Your task to perform on an android device: turn on improve location accuracy Image 0: 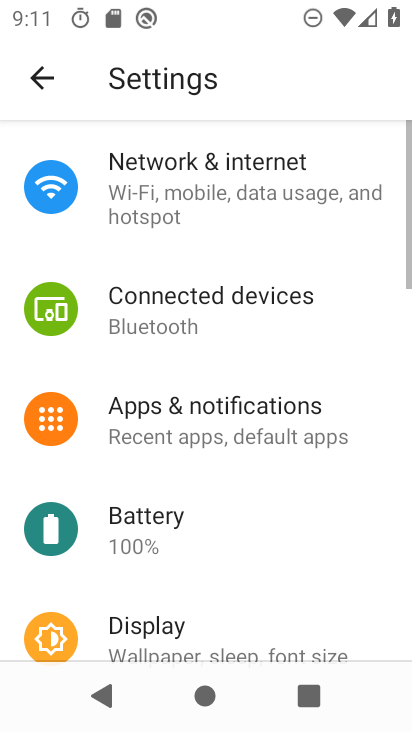
Step 0: press home button
Your task to perform on an android device: turn on improve location accuracy Image 1: 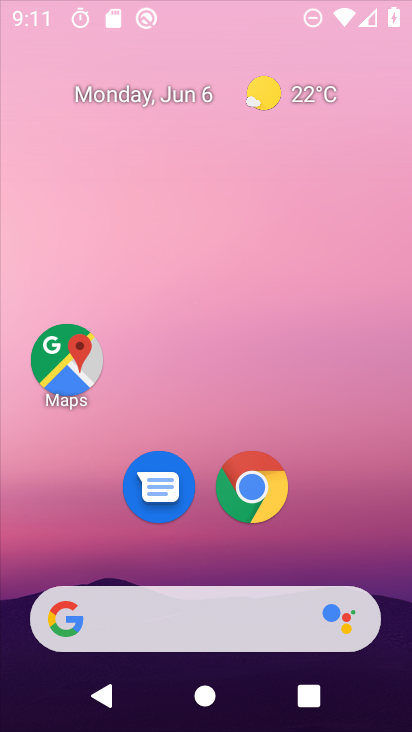
Step 1: drag from (400, 679) to (327, 76)
Your task to perform on an android device: turn on improve location accuracy Image 2: 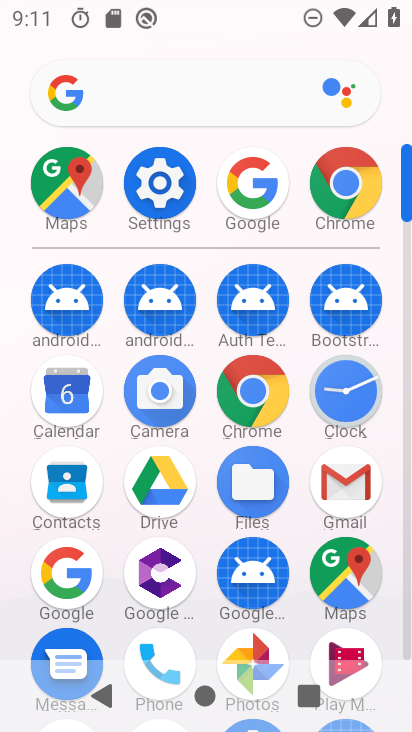
Step 2: click (141, 198)
Your task to perform on an android device: turn on improve location accuracy Image 3: 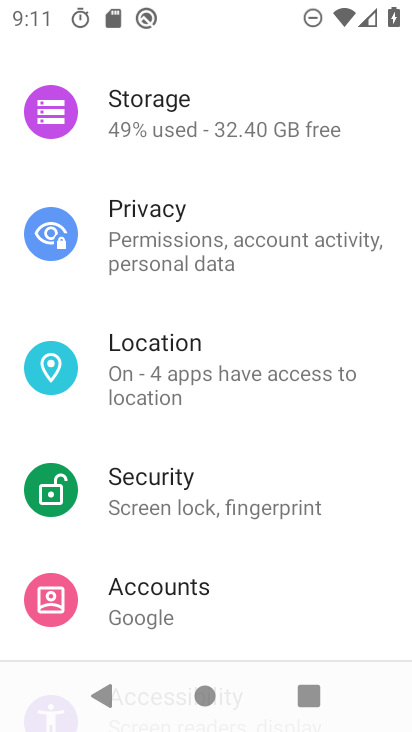
Step 3: click (157, 368)
Your task to perform on an android device: turn on improve location accuracy Image 4: 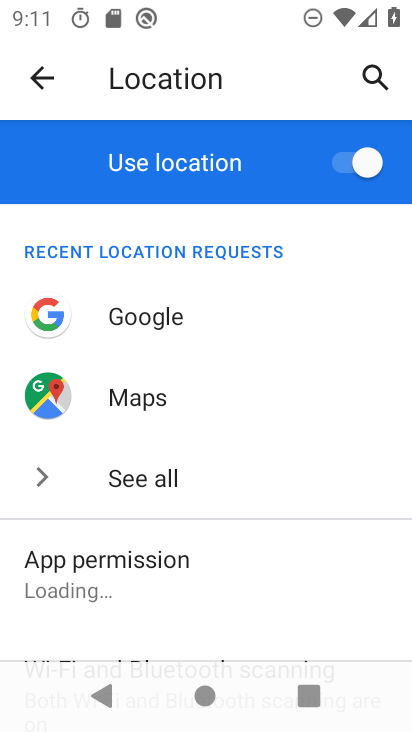
Step 4: drag from (176, 596) to (242, 194)
Your task to perform on an android device: turn on improve location accuracy Image 5: 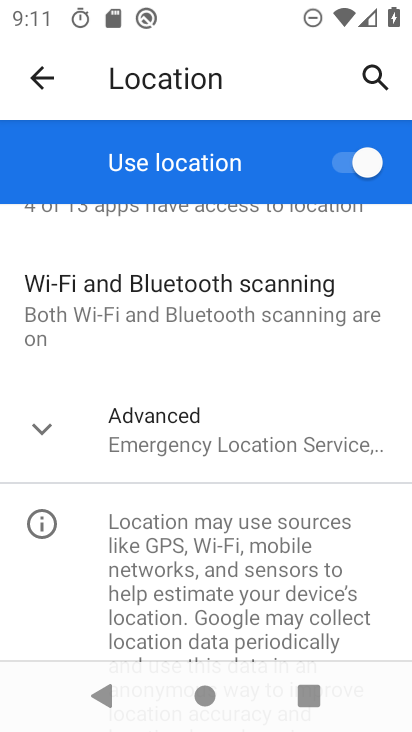
Step 5: click (48, 441)
Your task to perform on an android device: turn on improve location accuracy Image 6: 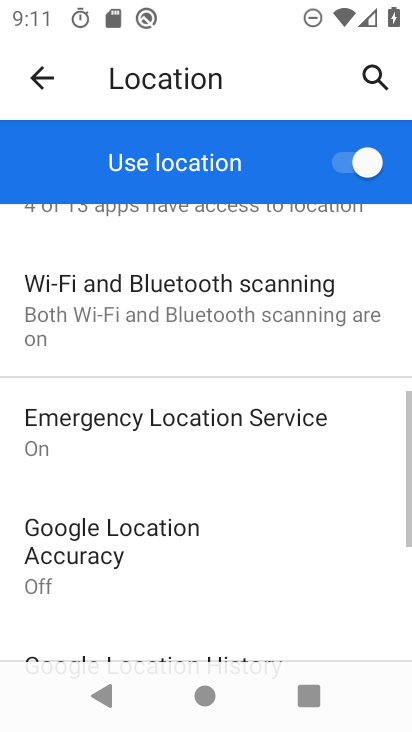
Step 6: click (175, 533)
Your task to perform on an android device: turn on improve location accuracy Image 7: 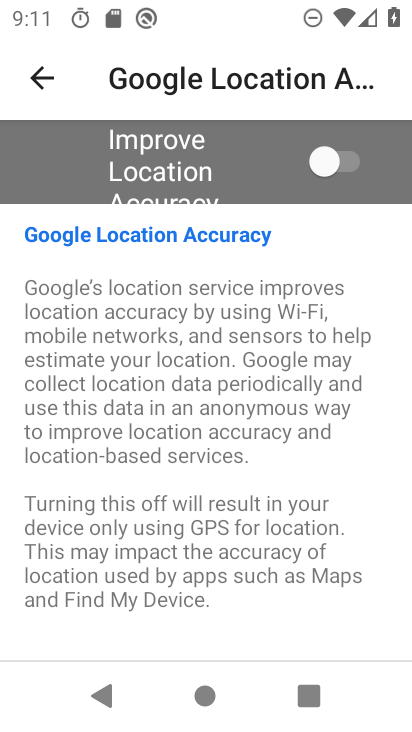
Step 7: click (348, 174)
Your task to perform on an android device: turn on improve location accuracy Image 8: 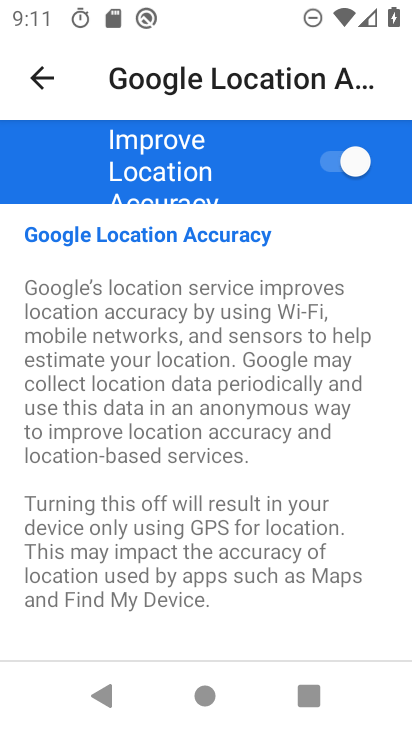
Step 8: task complete